Your task to perform on an android device: Open CNN.com Image 0: 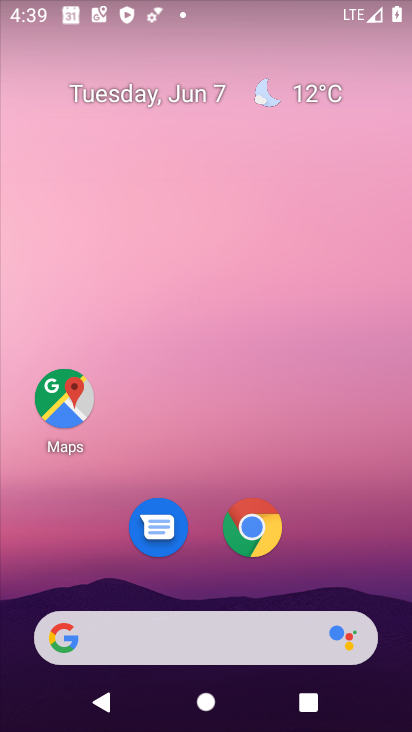
Step 0: click (252, 523)
Your task to perform on an android device: Open CNN.com Image 1: 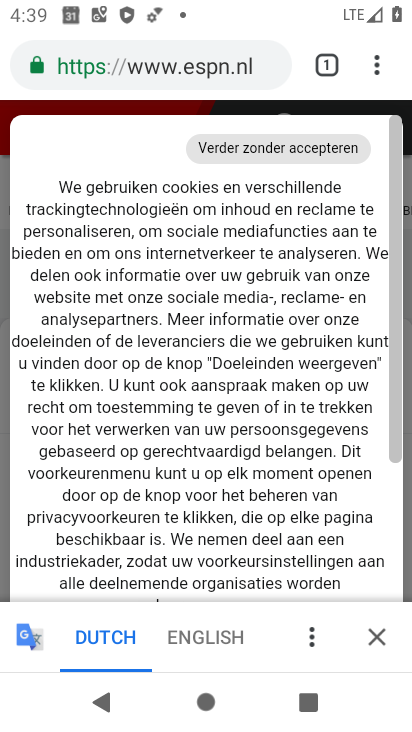
Step 1: click (205, 59)
Your task to perform on an android device: Open CNN.com Image 2: 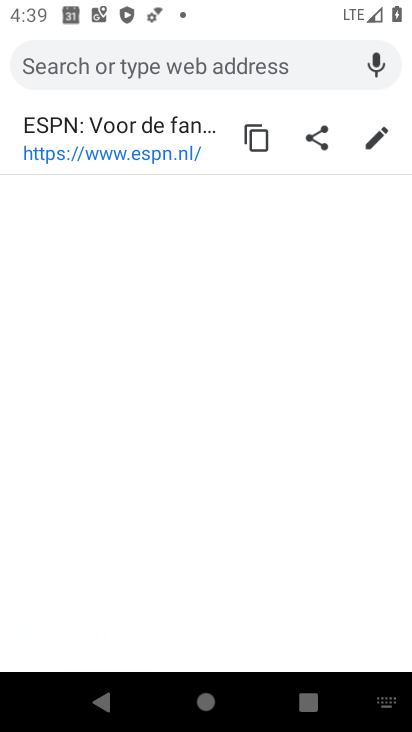
Step 2: type "CNN.com"
Your task to perform on an android device: Open CNN.com Image 3: 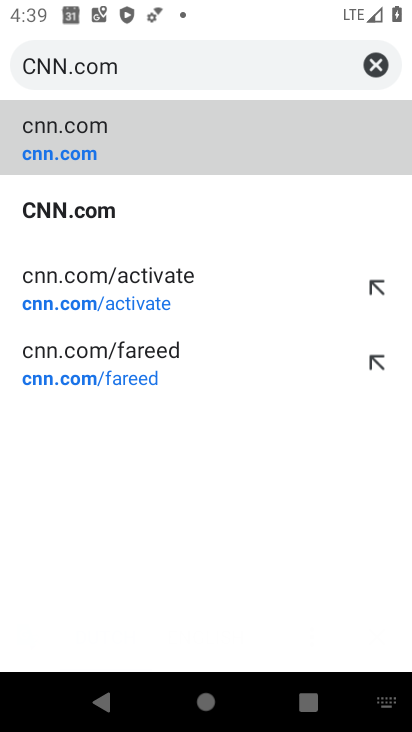
Step 3: click (78, 214)
Your task to perform on an android device: Open CNN.com Image 4: 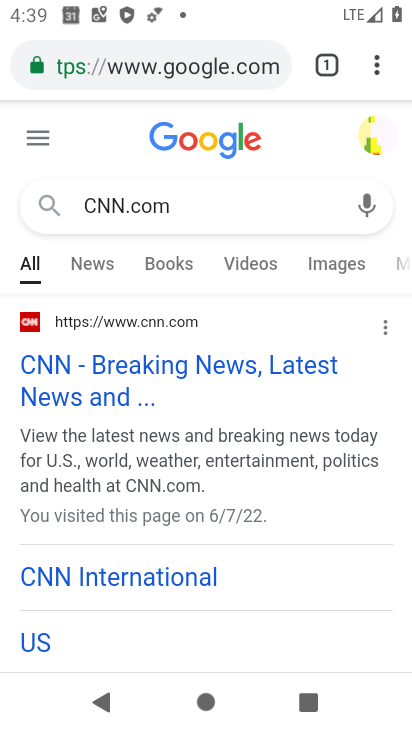
Step 4: click (163, 359)
Your task to perform on an android device: Open CNN.com Image 5: 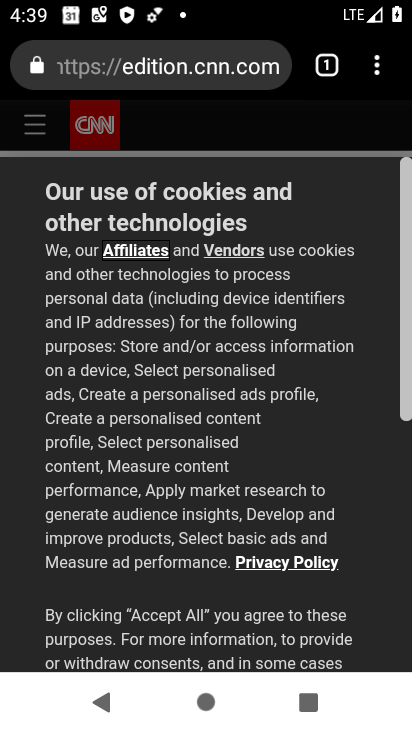
Step 5: task complete